Your task to perform on an android device: allow cookies in the chrome app Image 0: 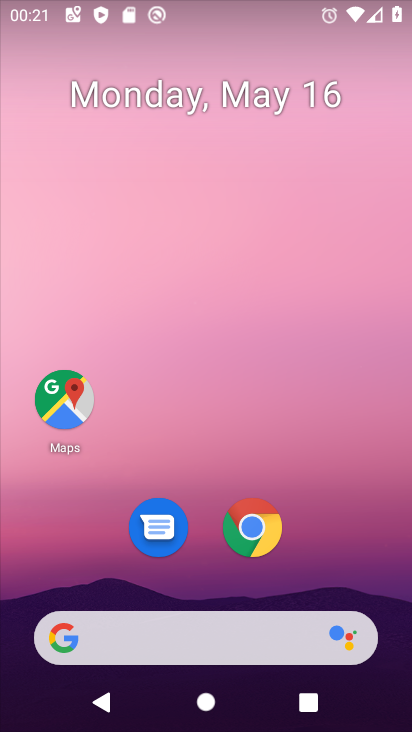
Step 0: click (272, 541)
Your task to perform on an android device: allow cookies in the chrome app Image 1: 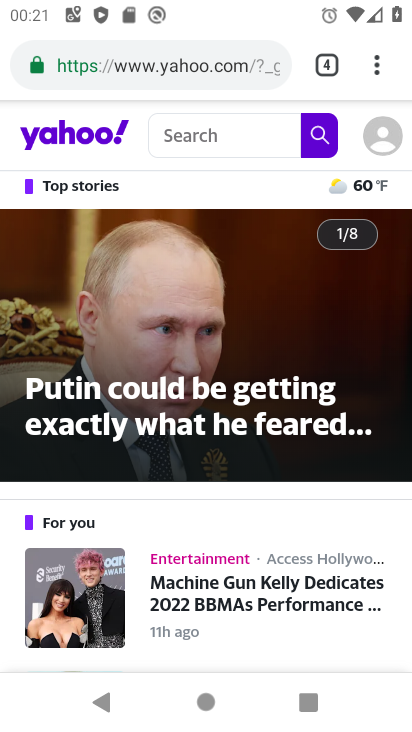
Step 1: click (384, 74)
Your task to perform on an android device: allow cookies in the chrome app Image 2: 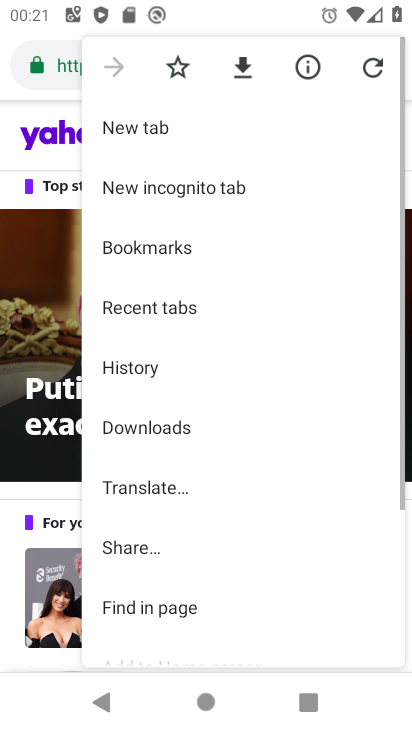
Step 2: drag from (272, 533) to (253, 219)
Your task to perform on an android device: allow cookies in the chrome app Image 3: 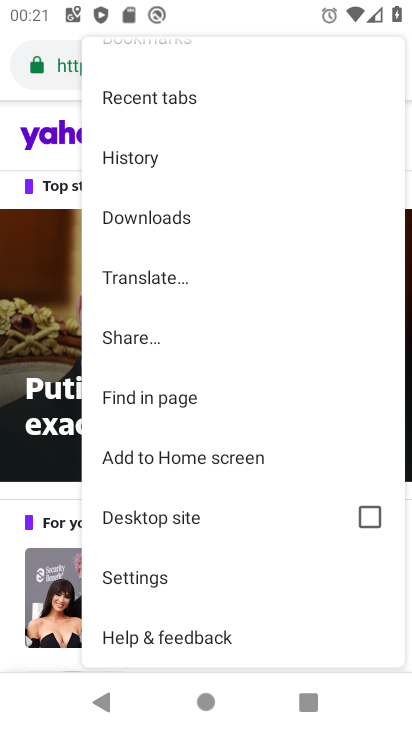
Step 3: click (218, 582)
Your task to perform on an android device: allow cookies in the chrome app Image 4: 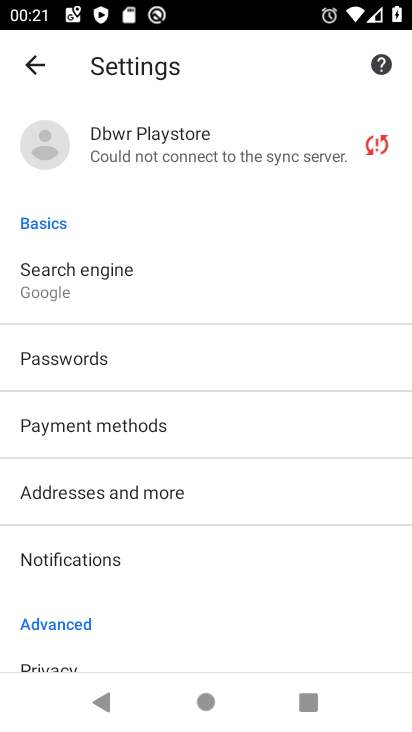
Step 4: drag from (218, 582) to (166, 78)
Your task to perform on an android device: allow cookies in the chrome app Image 5: 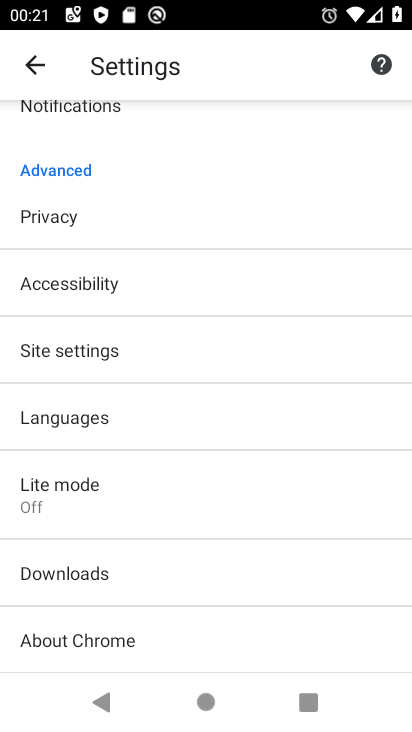
Step 5: click (151, 365)
Your task to perform on an android device: allow cookies in the chrome app Image 6: 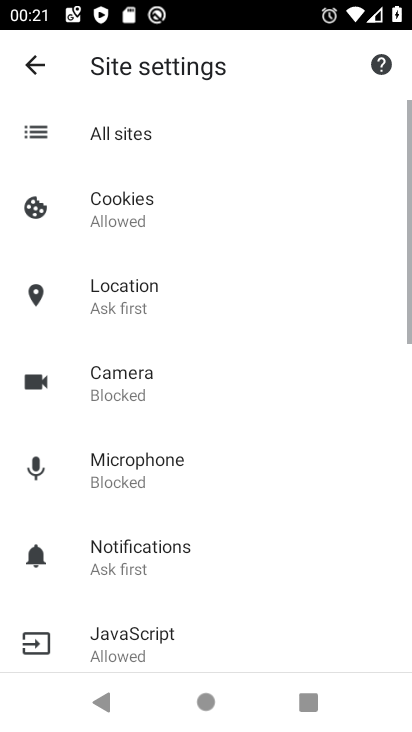
Step 6: task complete